Your task to perform on an android device: Clear the cart on newegg. Add duracell triple a to the cart on newegg, then select checkout. Image 0: 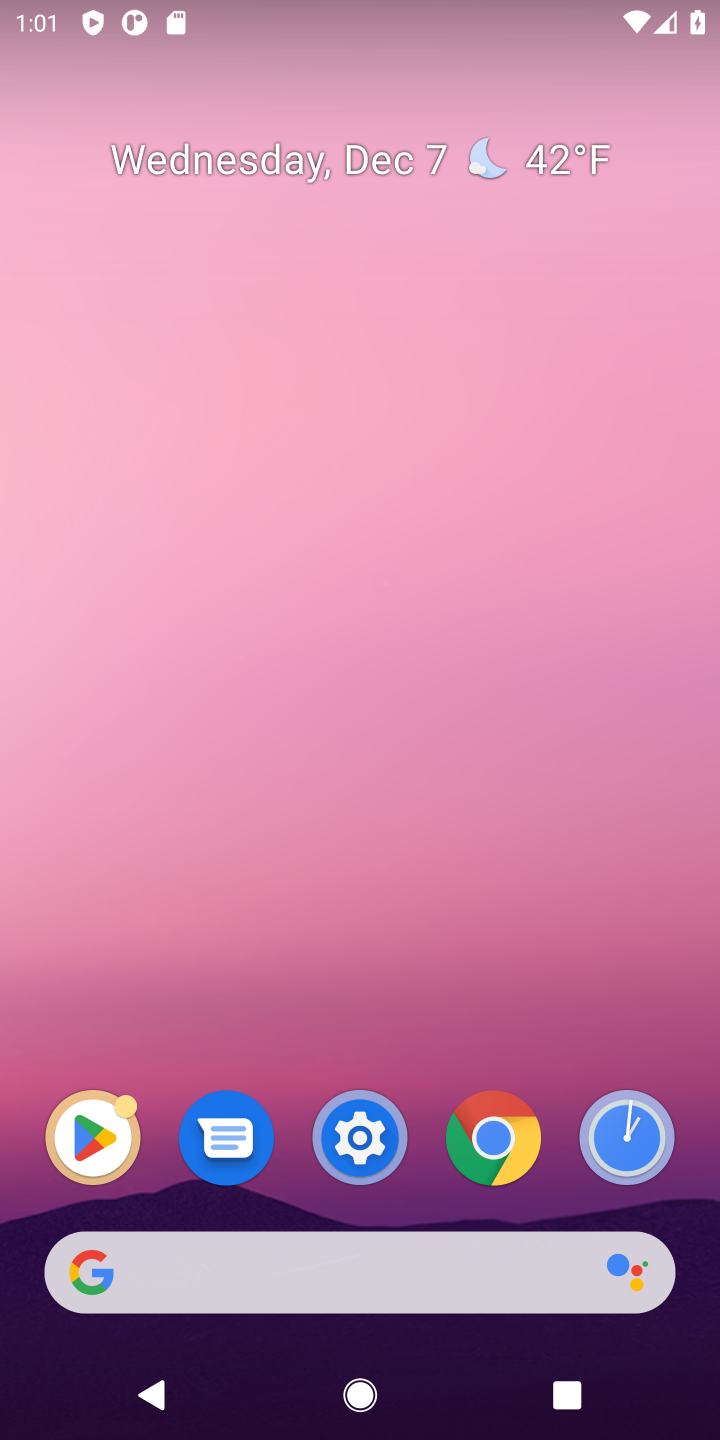
Step 0: click (354, 1264)
Your task to perform on an android device: Clear the cart on newegg. Add duracell triple a to the cart on newegg, then select checkout. Image 1: 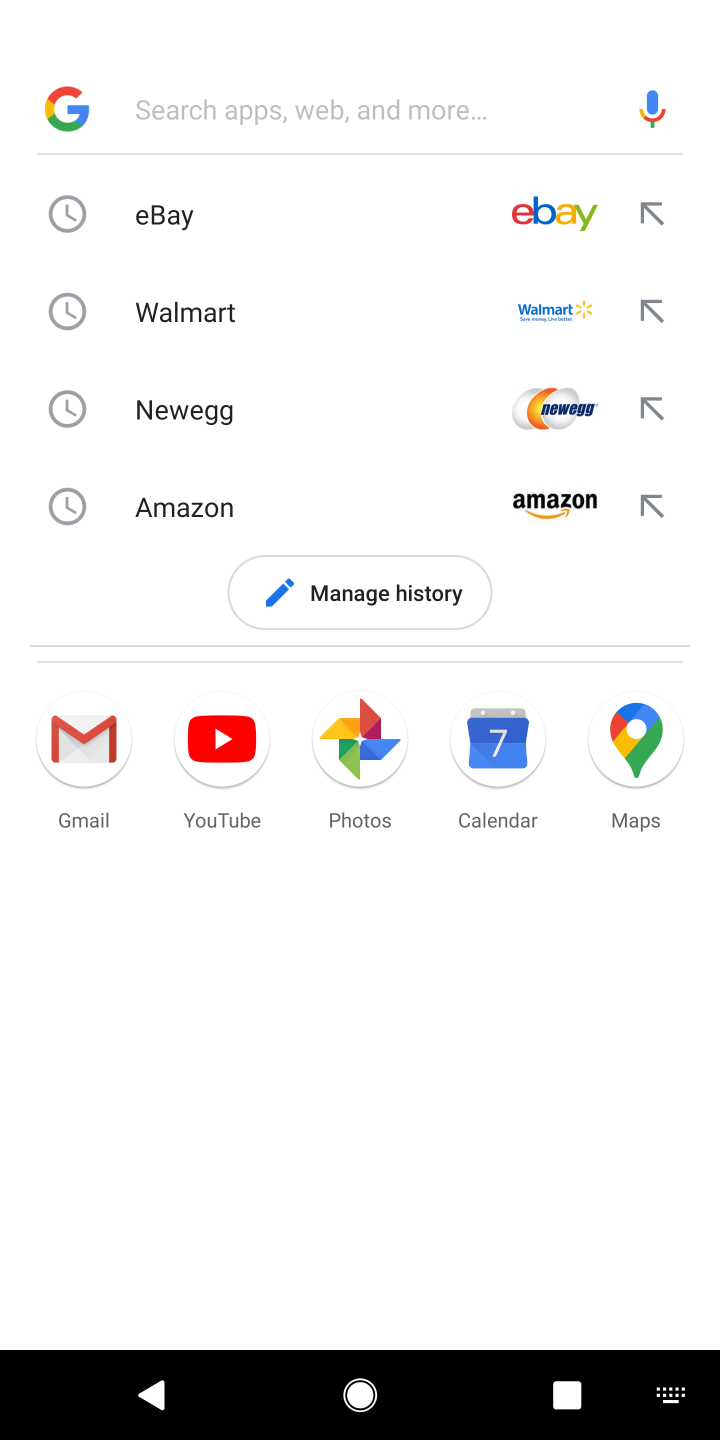
Step 1: type "newegg"
Your task to perform on an android device: Clear the cart on newegg. Add duracell triple a to the cart on newegg, then select checkout. Image 2: 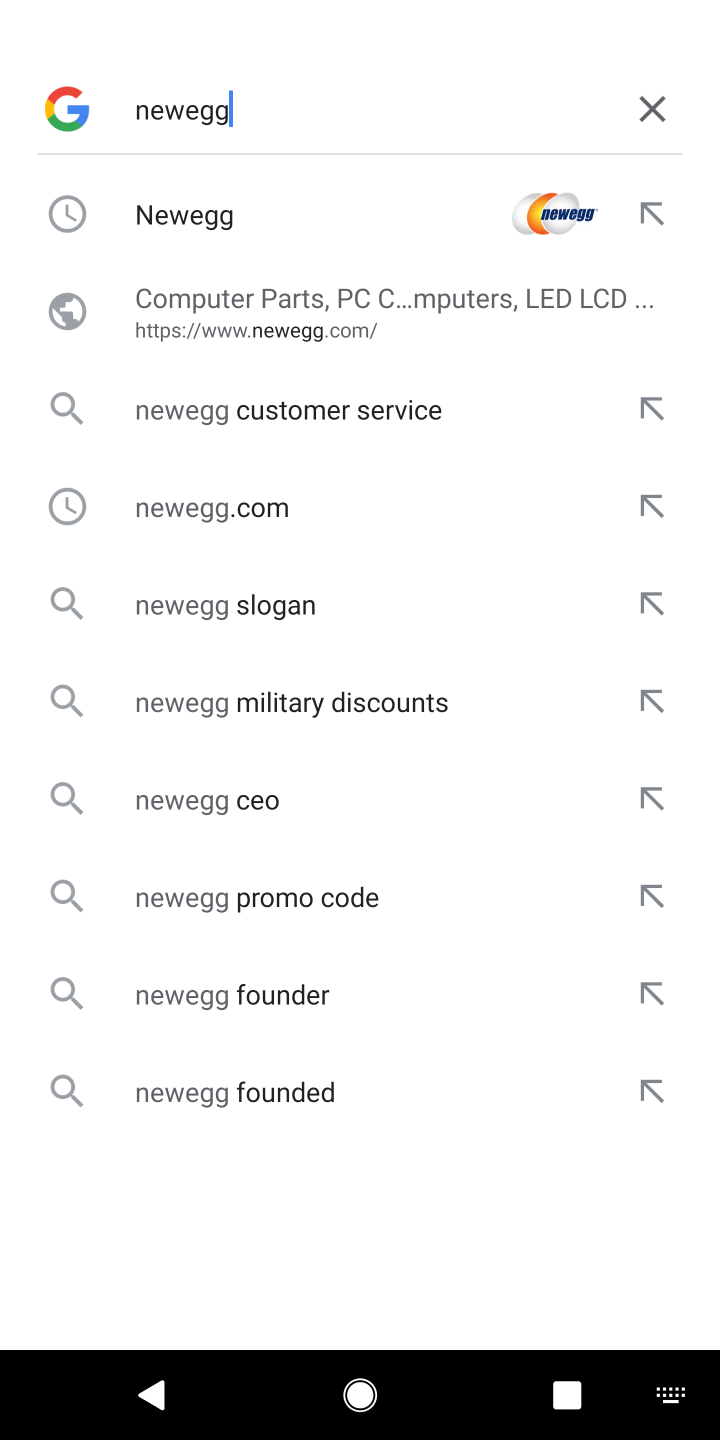
Step 2: click (353, 215)
Your task to perform on an android device: Clear the cart on newegg. Add duracell triple a to the cart on newegg, then select checkout. Image 3: 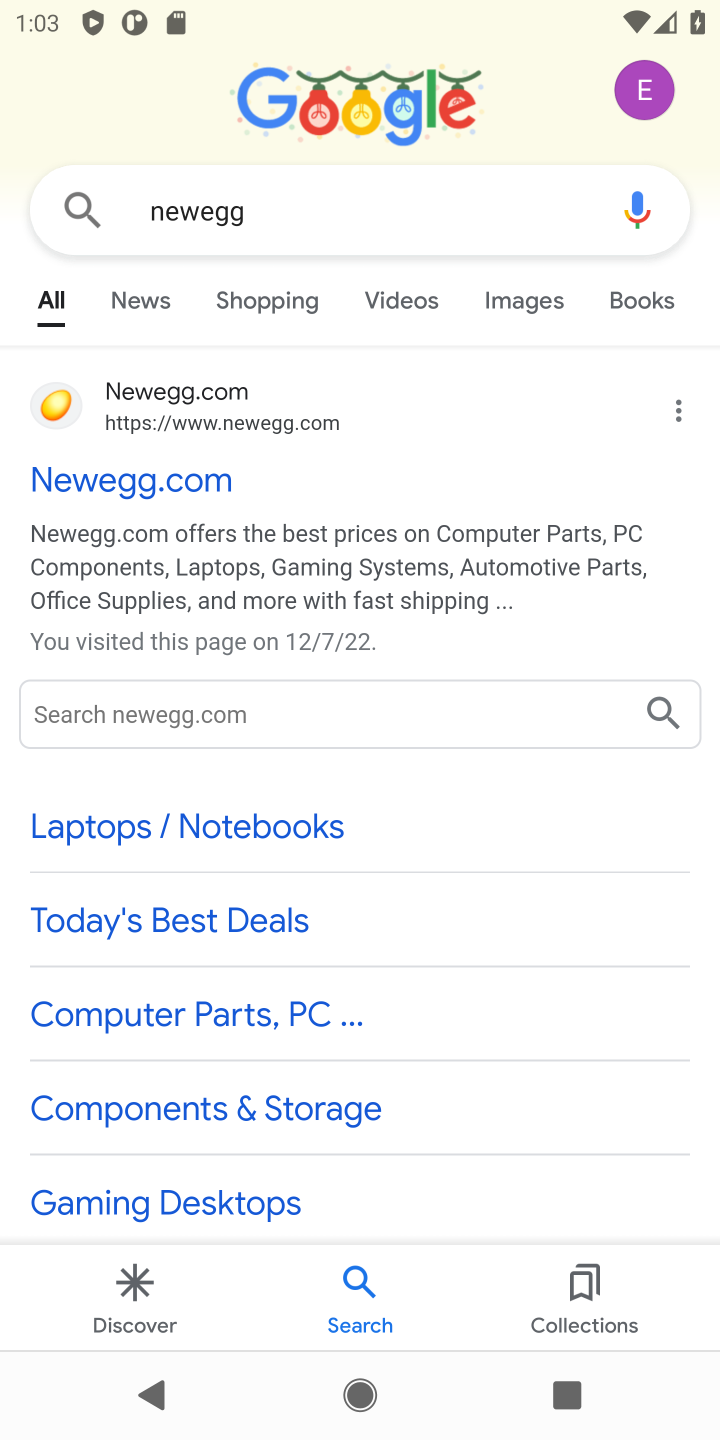
Step 3: click (169, 500)
Your task to perform on an android device: Clear the cart on newegg. Add duracell triple a to the cart on newegg, then select checkout. Image 4: 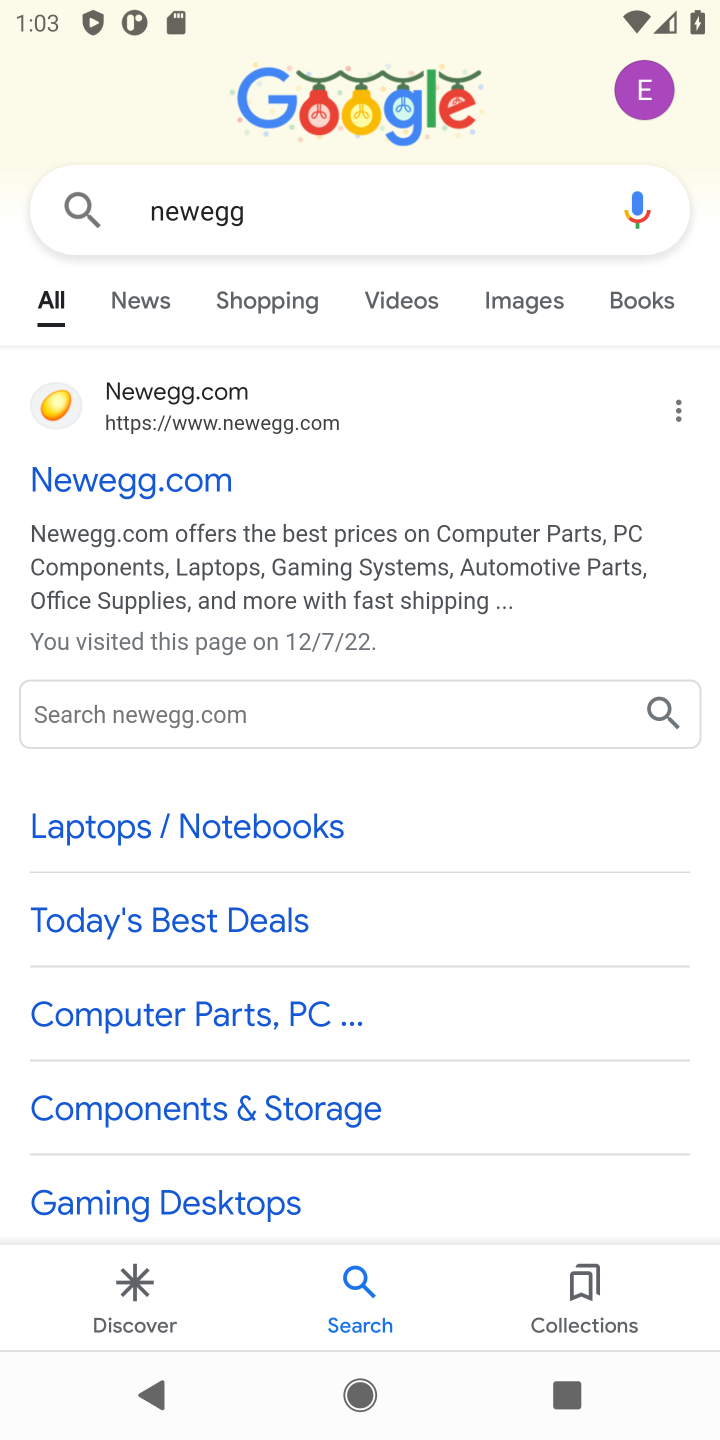
Step 4: task complete